Your task to perform on an android device: turn off sleep mode Image 0: 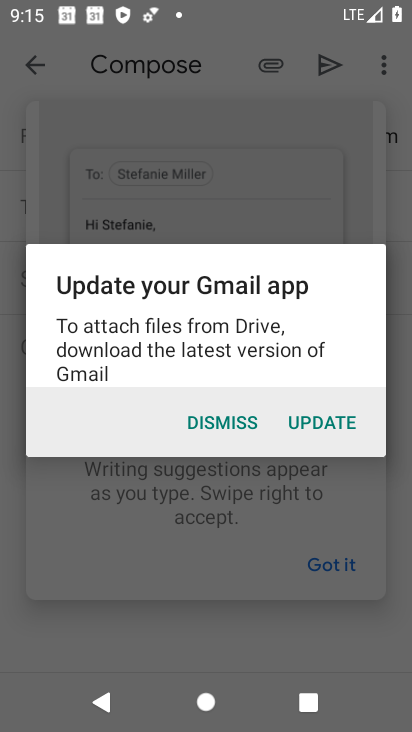
Step 0: press home button
Your task to perform on an android device: turn off sleep mode Image 1: 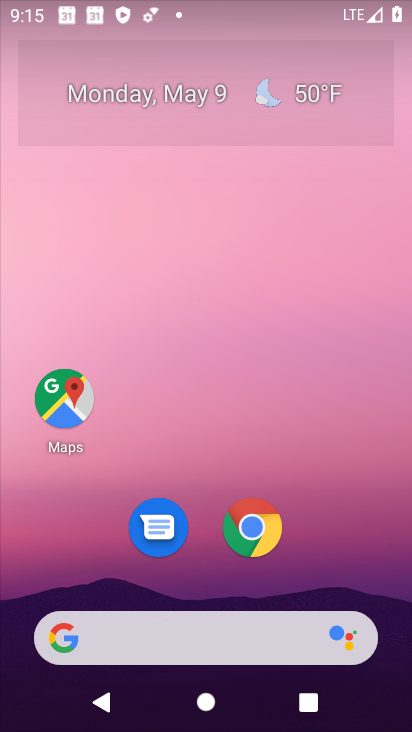
Step 1: drag from (197, 565) to (268, 5)
Your task to perform on an android device: turn off sleep mode Image 2: 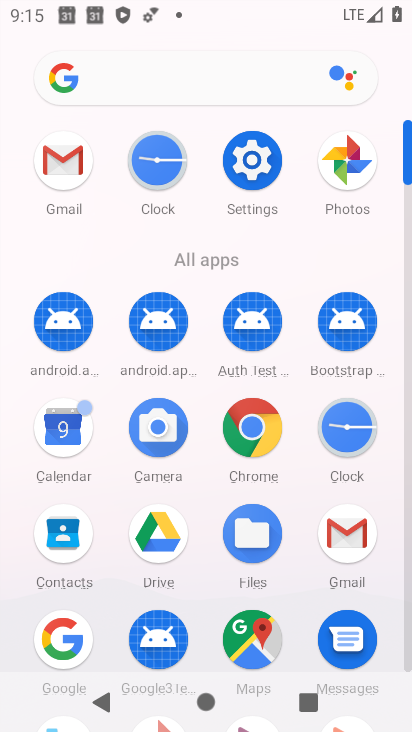
Step 2: click (249, 151)
Your task to perform on an android device: turn off sleep mode Image 3: 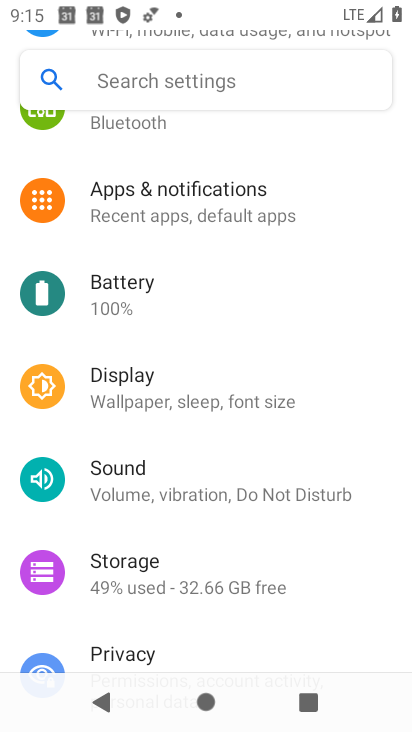
Step 3: click (224, 78)
Your task to perform on an android device: turn off sleep mode Image 4: 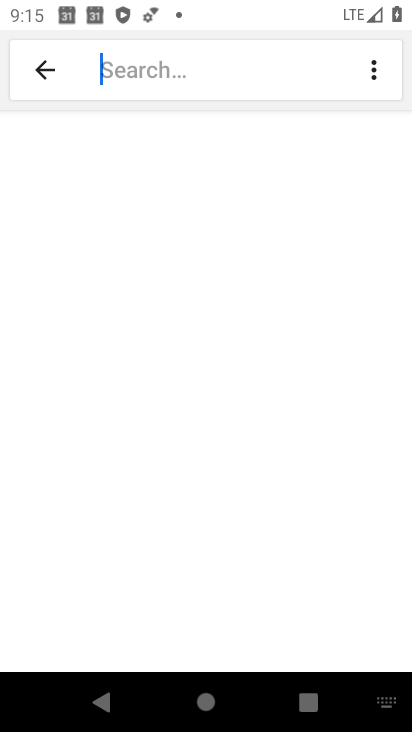
Step 4: type "sleep mode"
Your task to perform on an android device: turn off sleep mode Image 5: 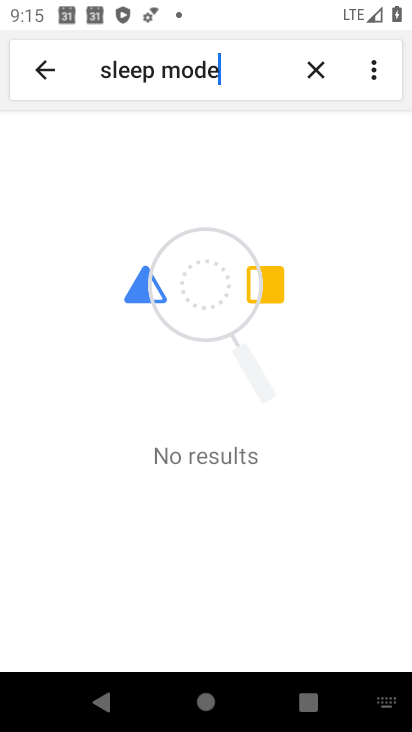
Step 5: task complete